Your task to perform on an android device: Search for "rayovac triple a" on ebay.com, select the first entry, add it to the cart, then select checkout. Image 0: 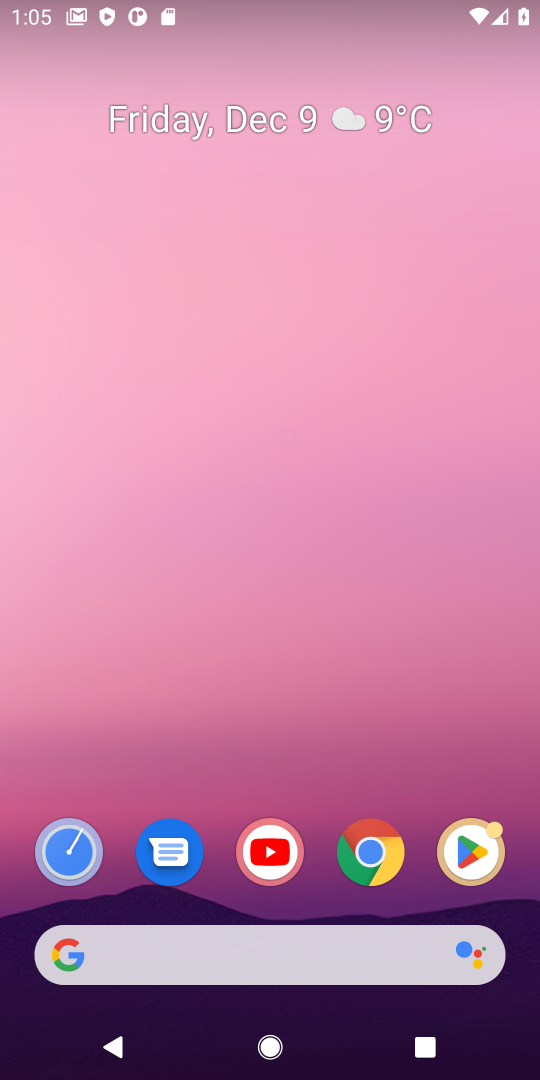
Step 0: click (382, 853)
Your task to perform on an android device: Search for "rayovac triple a" on ebay.com, select the first entry, add it to the cart, then select checkout. Image 1: 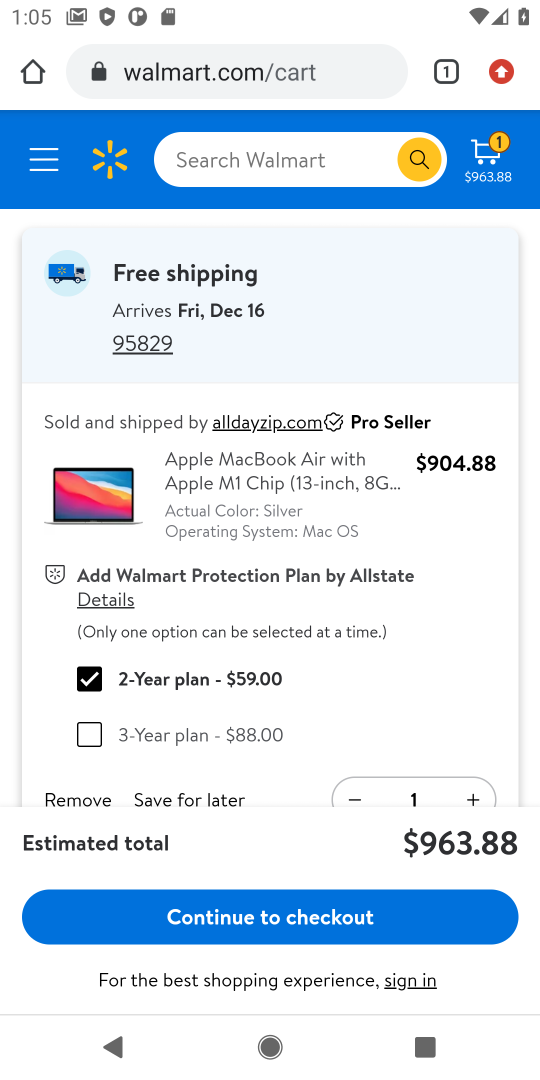
Step 1: click (176, 77)
Your task to perform on an android device: Search for "rayovac triple a" on ebay.com, select the first entry, add it to the cart, then select checkout. Image 2: 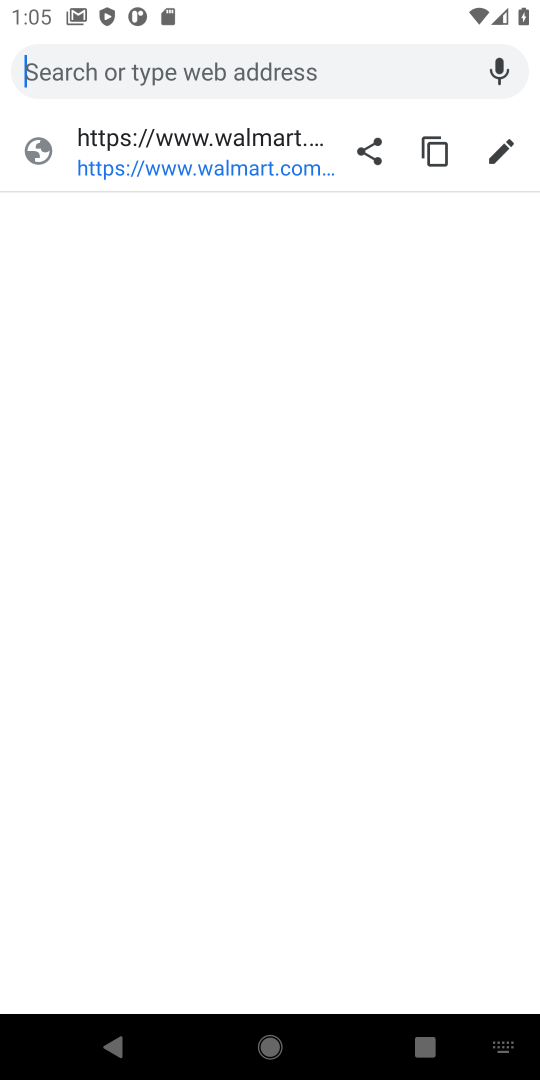
Step 2: type "ebay.com"
Your task to perform on an android device: Search for "rayovac triple a" on ebay.com, select the first entry, add it to the cart, then select checkout. Image 3: 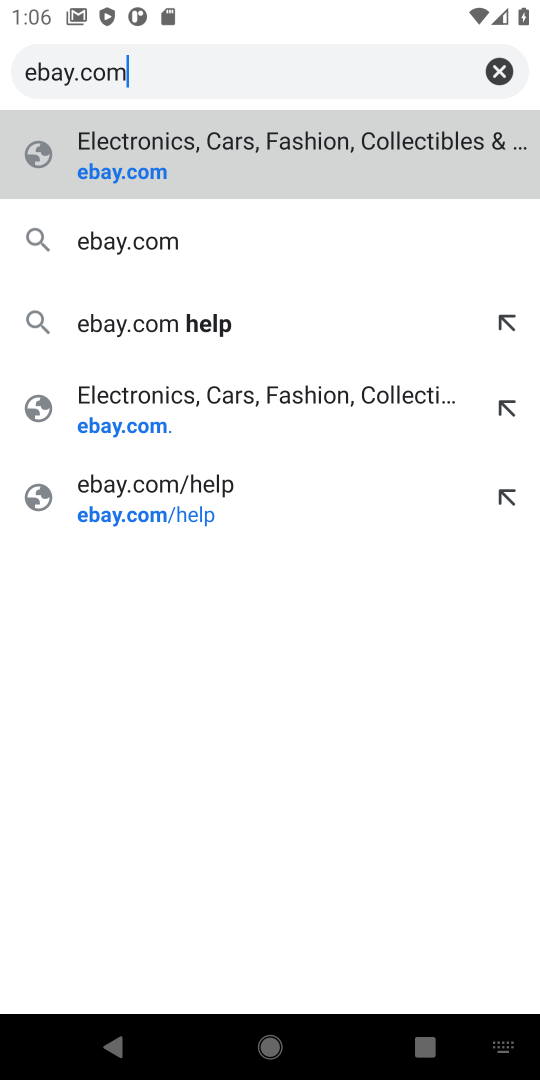
Step 3: click (206, 141)
Your task to perform on an android device: Search for "rayovac triple a" on ebay.com, select the first entry, add it to the cart, then select checkout. Image 4: 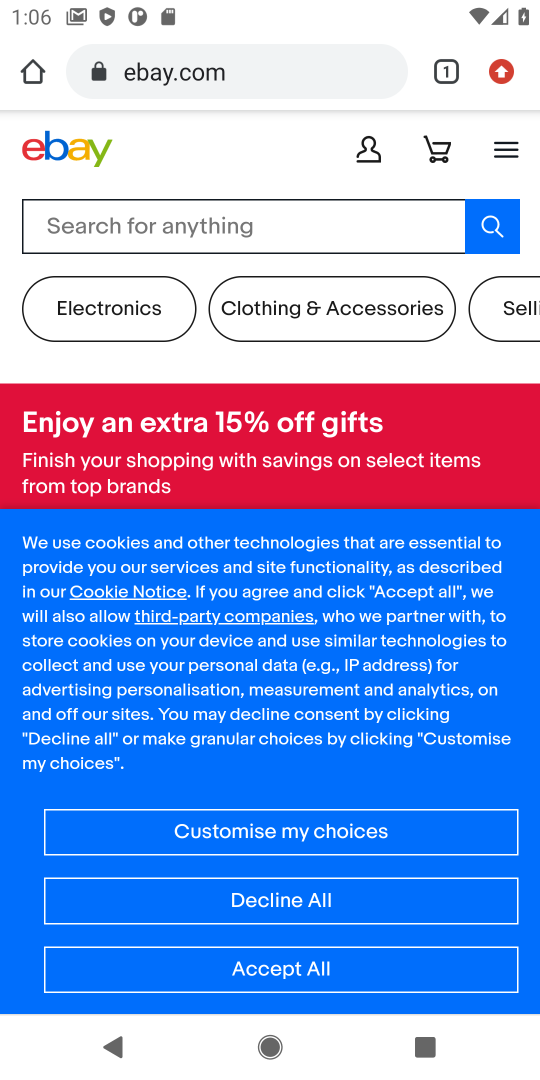
Step 4: click (303, 982)
Your task to perform on an android device: Search for "rayovac triple a" on ebay.com, select the first entry, add it to the cart, then select checkout. Image 5: 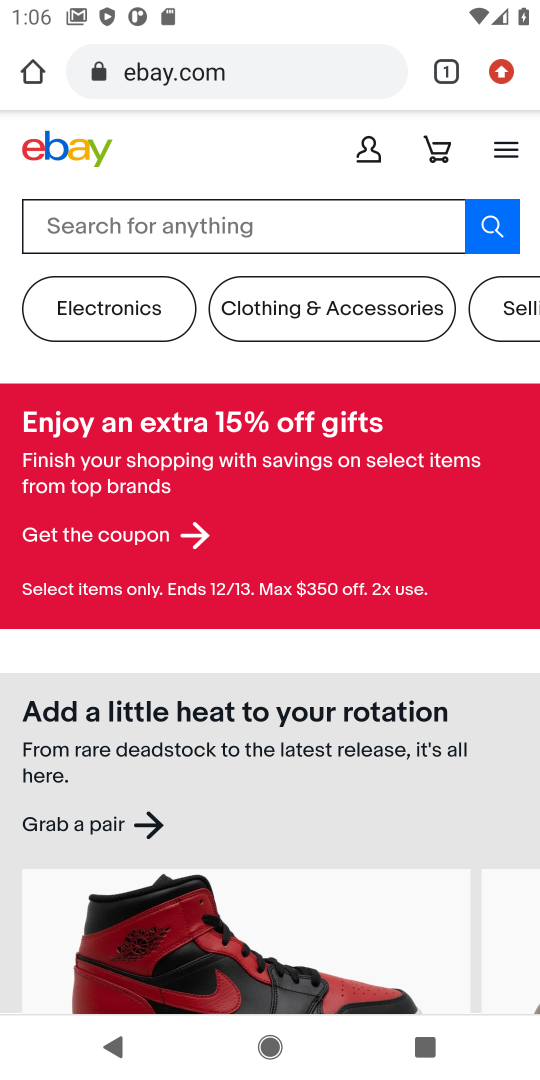
Step 5: click (248, 238)
Your task to perform on an android device: Search for "rayovac triple a" on ebay.com, select the first entry, add it to the cart, then select checkout. Image 6: 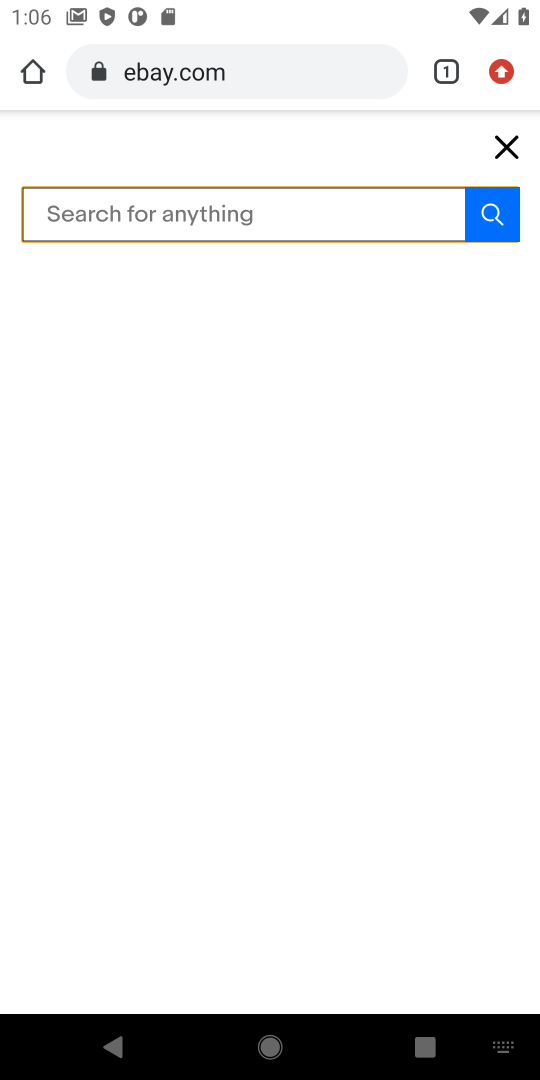
Step 6: type "rayovac triple a"
Your task to perform on an android device: Search for "rayovac triple a" on ebay.com, select the first entry, add it to the cart, then select checkout. Image 7: 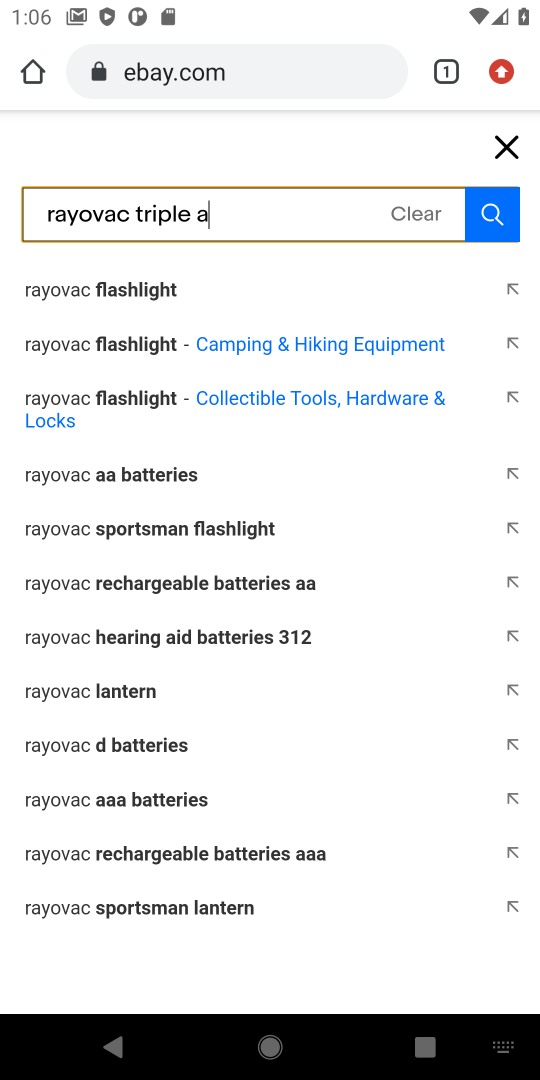
Step 7: press enter
Your task to perform on an android device: Search for "rayovac triple a" on ebay.com, select the first entry, add it to the cart, then select checkout. Image 8: 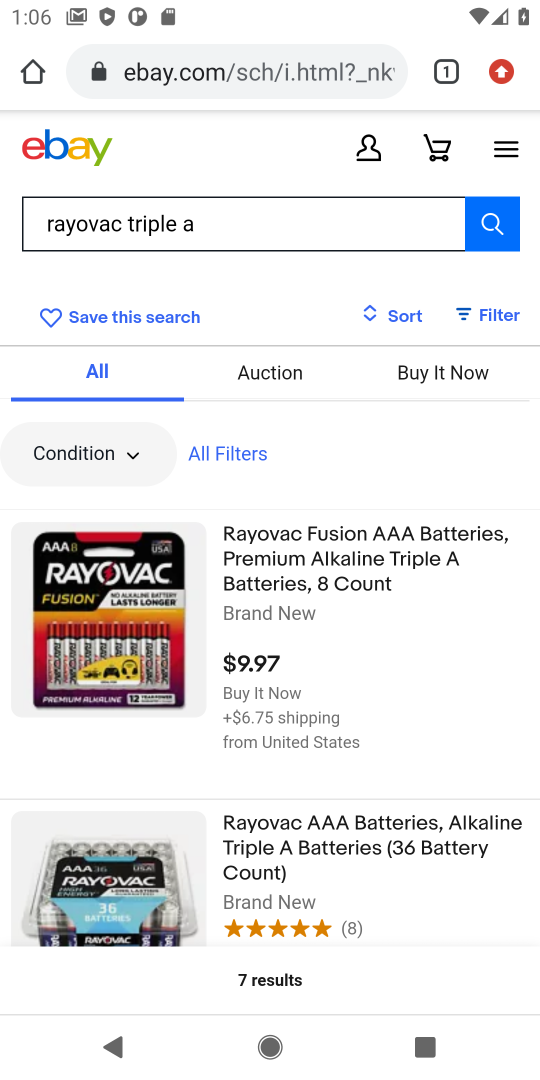
Step 8: click (256, 586)
Your task to perform on an android device: Search for "rayovac triple a" on ebay.com, select the first entry, add it to the cart, then select checkout. Image 9: 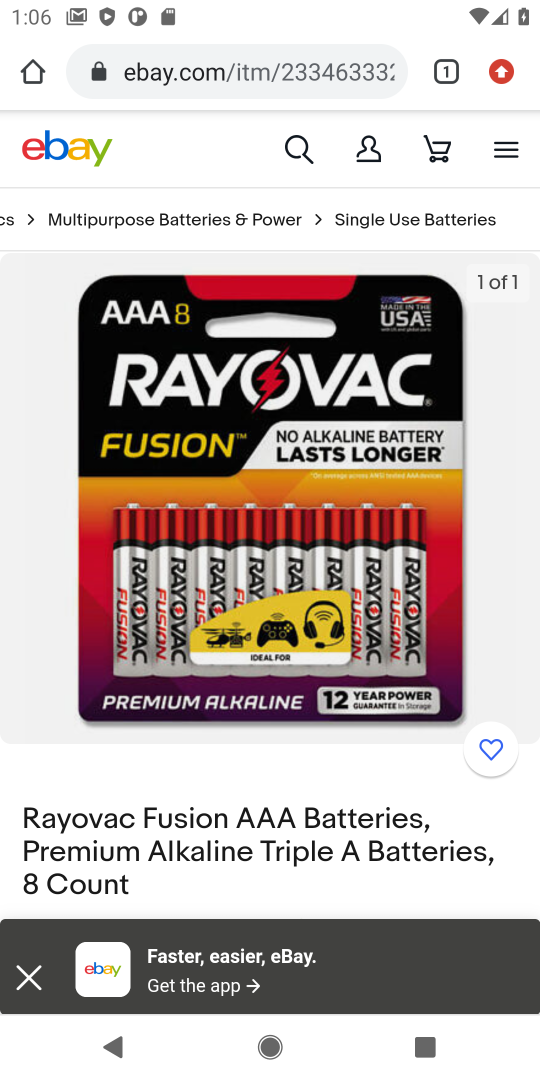
Step 9: drag from (457, 771) to (468, 236)
Your task to perform on an android device: Search for "rayovac triple a" on ebay.com, select the first entry, add it to the cart, then select checkout. Image 10: 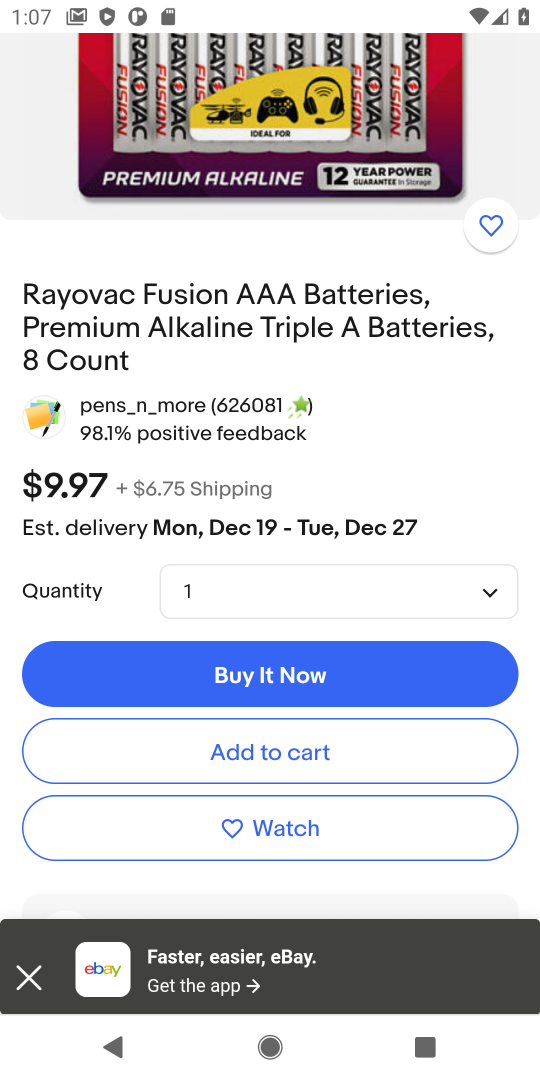
Step 10: click (298, 747)
Your task to perform on an android device: Search for "rayovac triple a" on ebay.com, select the first entry, add it to the cart, then select checkout. Image 11: 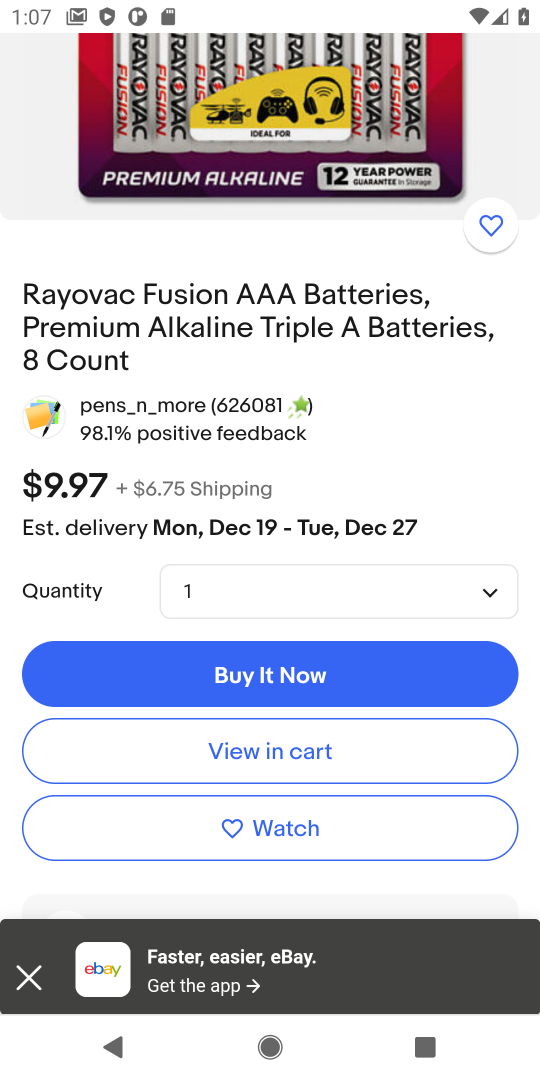
Step 11: click (292, 742)
Your task to perform on an android device: Search for "rayovac triple a" on ebay.com, select the first entry, add it to the cart, then select checkout. Image 12: 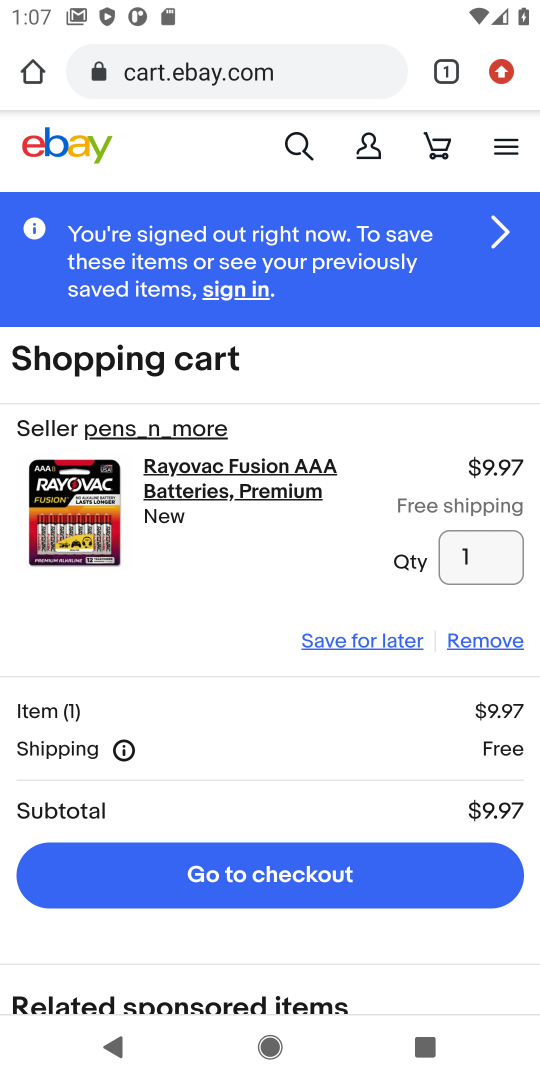
Step 12: click (275, 879)
Your task to perform on an android device: Search for "rayovac triple a" on ebay.com, select the first entry, add it to the cart, then select checkout. Image 13: 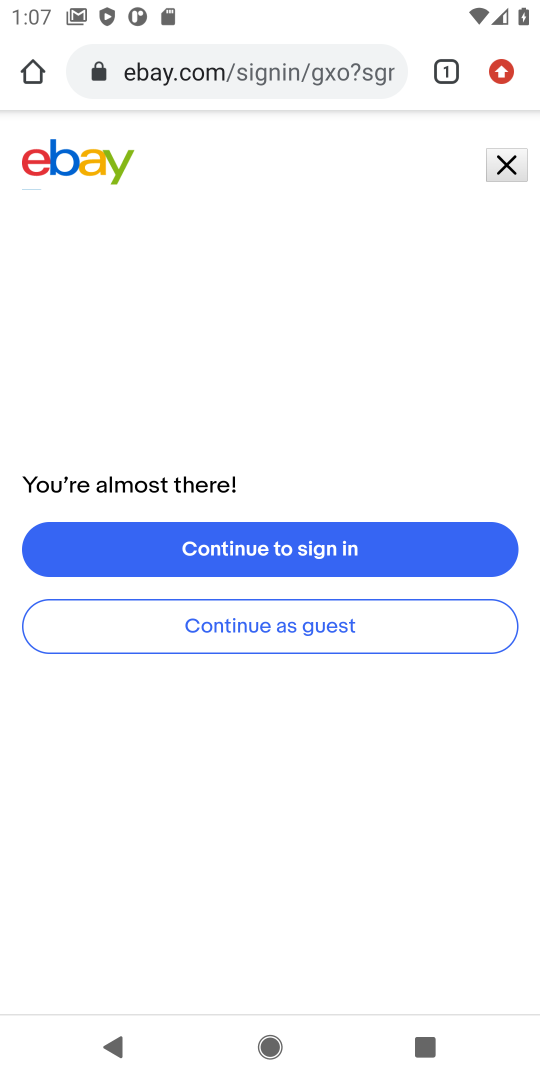
Step 13: click (296, 544)
Your task to perform on an android device: Search for "rayovac triple a" on ebay.com, select the first entry, add it to the cart, then select checkout. Image 14: 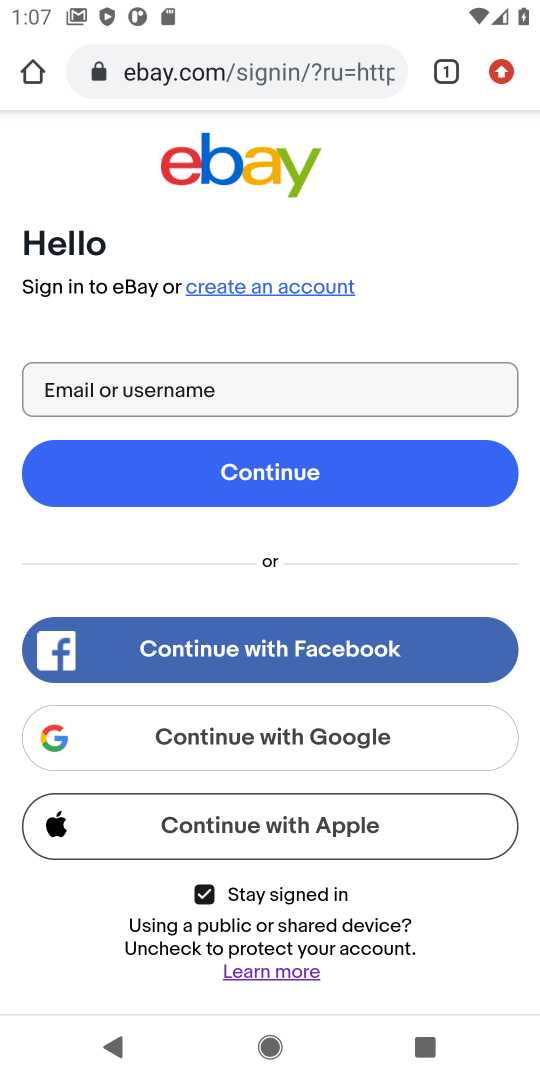
Step 14: task complete